Your task to perform on an android device: turn on airplane mode Image 0: 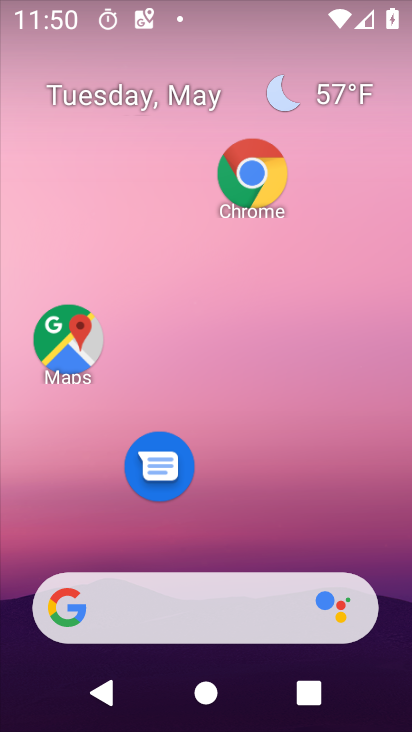
Step 0: drag from (245, 269) to (266, 149)
Your task to perform on an android device: turn on airplane mode Image 1: 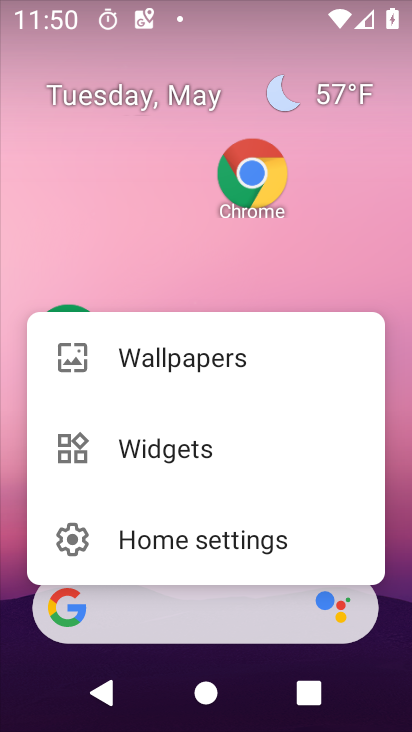
Step 1: click (109, 182)
Your task to perform on an android device: turn on airplane mode Image 2: 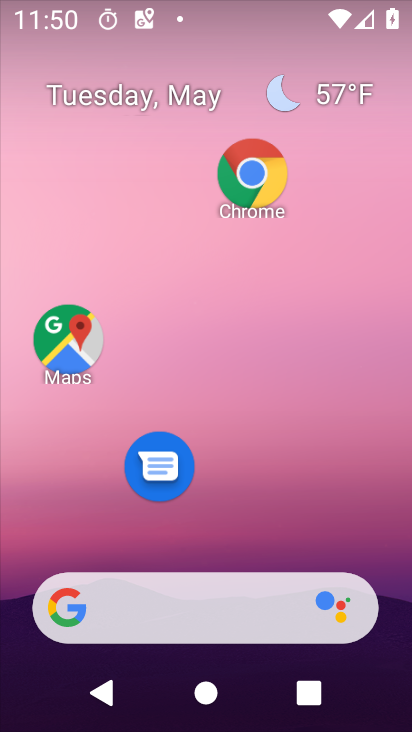
Step 2: drag from (273, 6) to (315, 418)
Your task to perform on an android device: turn on airplane mode Image 3: 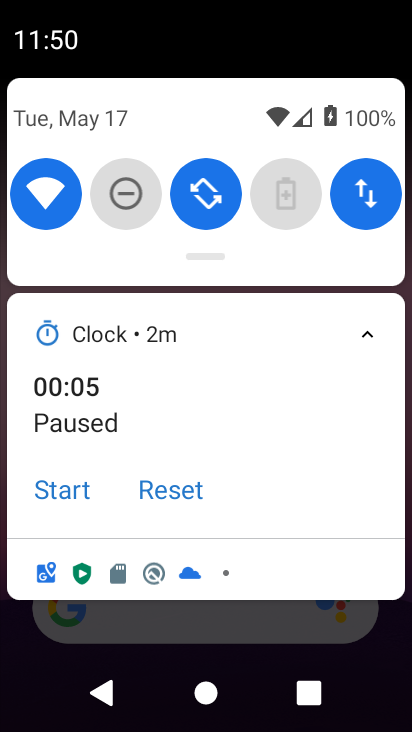
Step 3: drag from (250, 0) to (271, 433)
Your task to perform on an android device: turn on airplane mode Image 4: 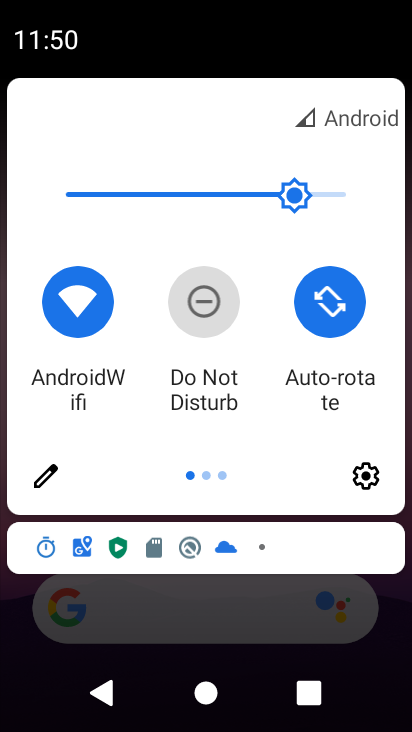
Step 4: drag from (280, 231) to (284, 539)
Your task to perform on an android device: turn on airplane mode Image 5: 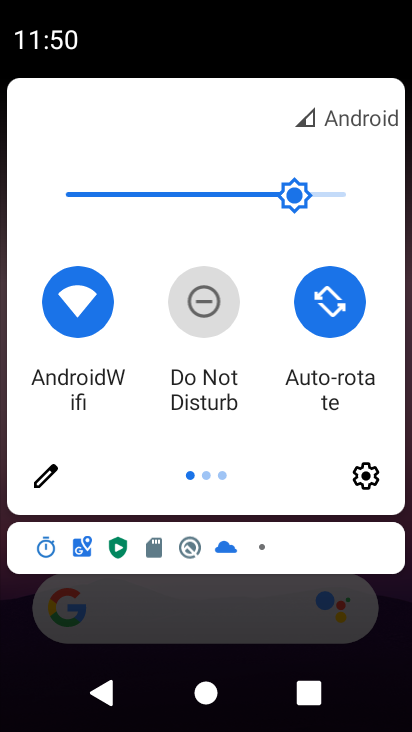
Step 5: drag from (365, 363) to (2, 374)
Your task to perform on an android device: turn on airplane mode Image 6: 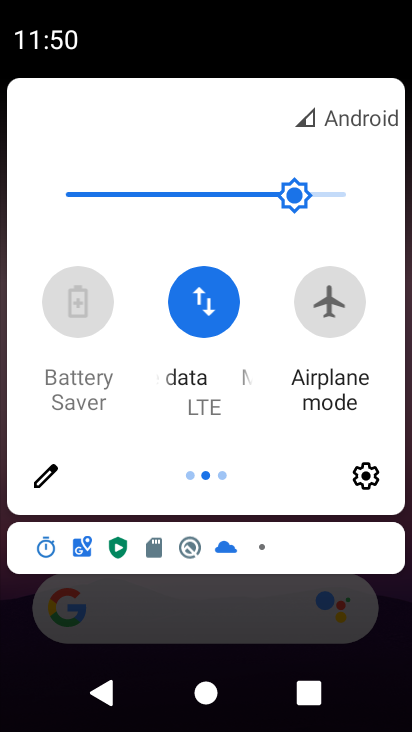
Step 6: click (340, 298)
Your task to perform on an android device: turn on airplane mode Image 7: 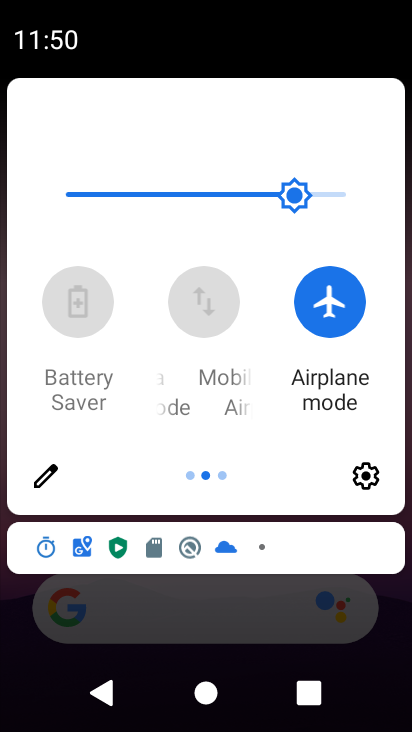
Step 7: task complete